Your task to perform on an android device: move an email to a new category in the gmail app Image 0: 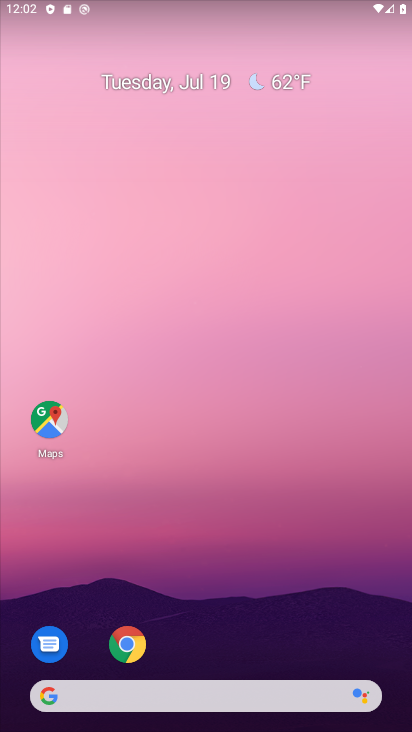
Step 0: drag from (384, 726) to (331, 135)
Your task to perform on an android device: move an email to a new category in the gmail app Image 1: 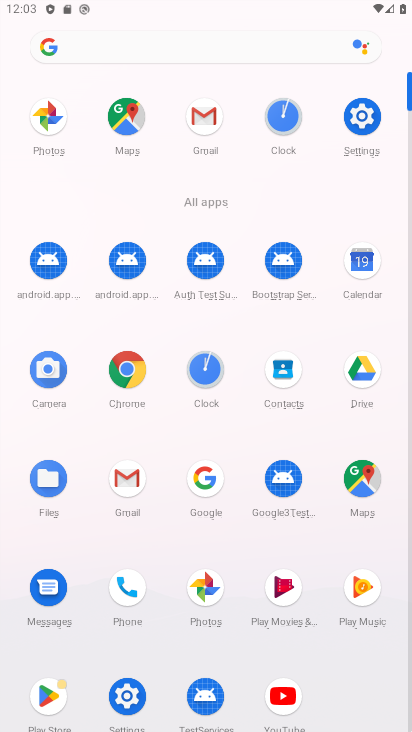
Step 1: click (129, 488)
Your task to perform on an android device: move an email to a new category in the gmail app Image 2: 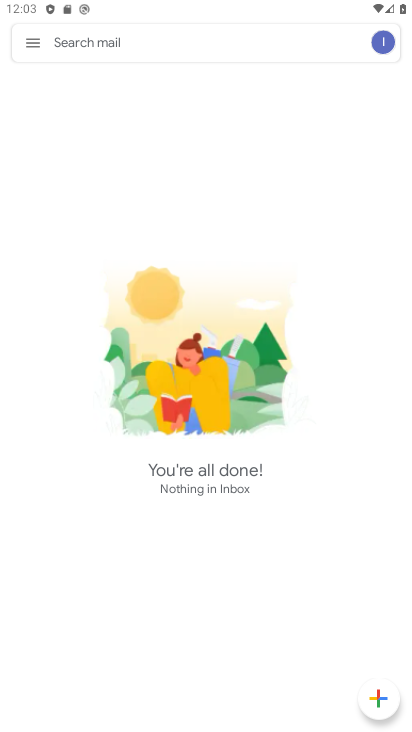
Step 2: task complete